Your task to perform on an android device: toggle improve location accuracy Image 0: 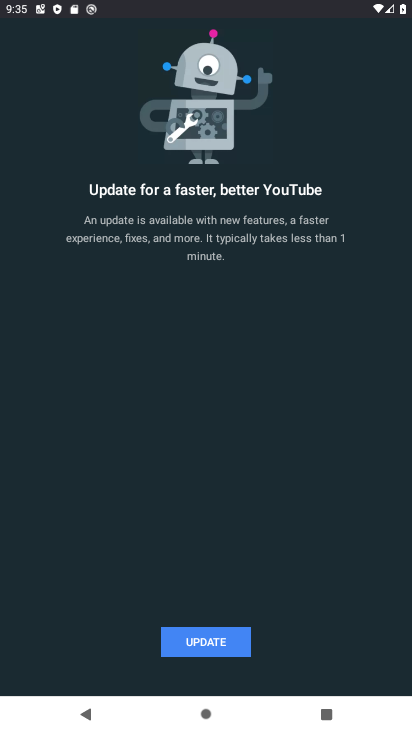
Step 0: press home button
Your task to perform on an android device: toggle improve location accuracy Image 1: 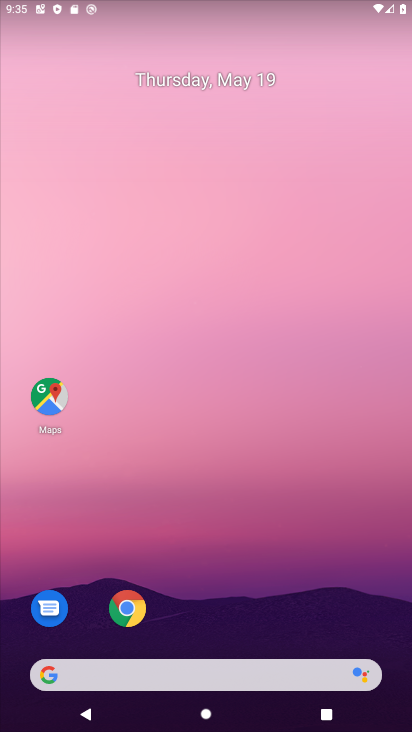
Step 1: drag from (194, 653) to (253, 264)
Your task to perform on an android device: toggle improve location accuracy Image 2: 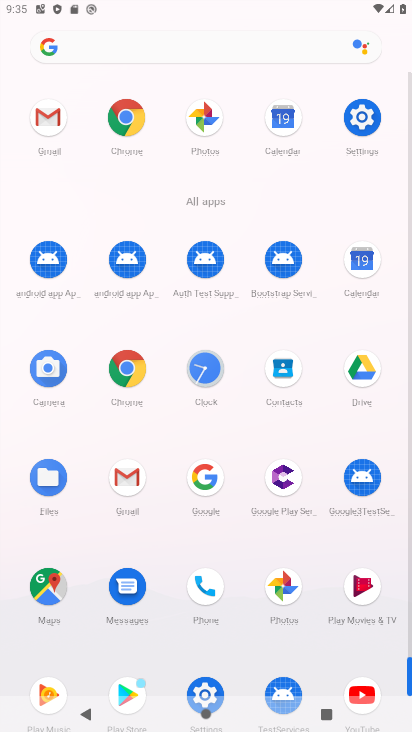
Step 2: click (358, 121)
Your task to perform on an android device: toggle improve location accuracy Image 3: 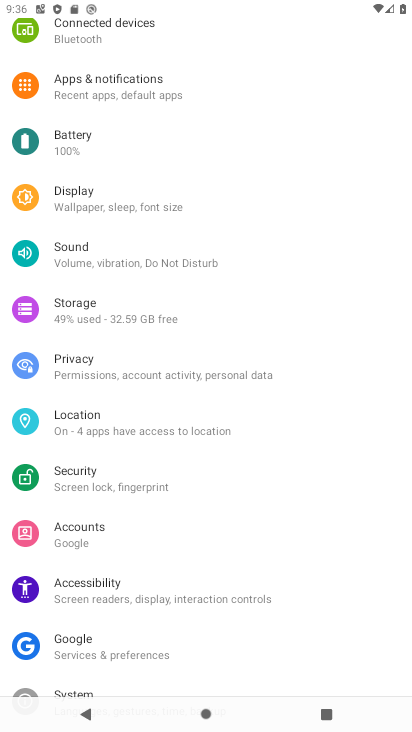
Step 3: click (142, 422)
Your task to perform on an android device: toggle improve location accuracy Image 4: 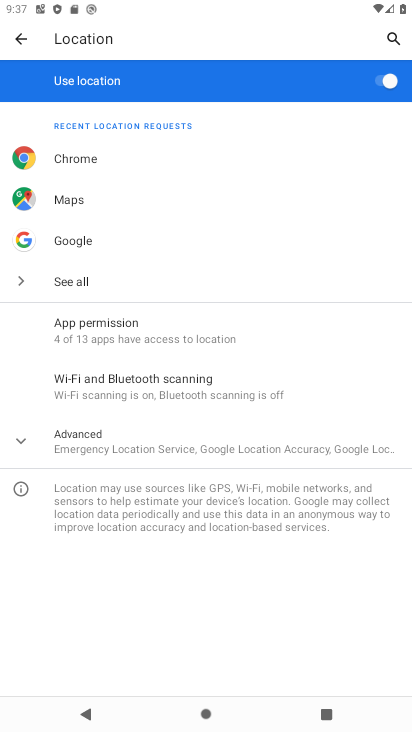
Step 4: click (16, 443)
Your task to perform on an android device: toggle improve location accuracy Image 5: 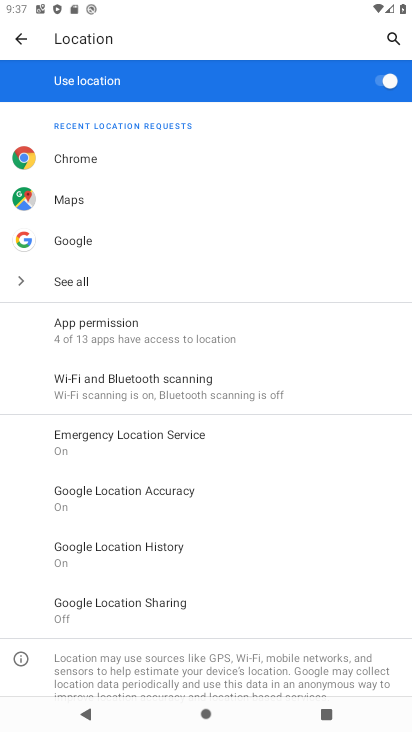
Step 5: click (156, 498)
Your task to perform on an android device: toggle improve location accuracy Image 6: 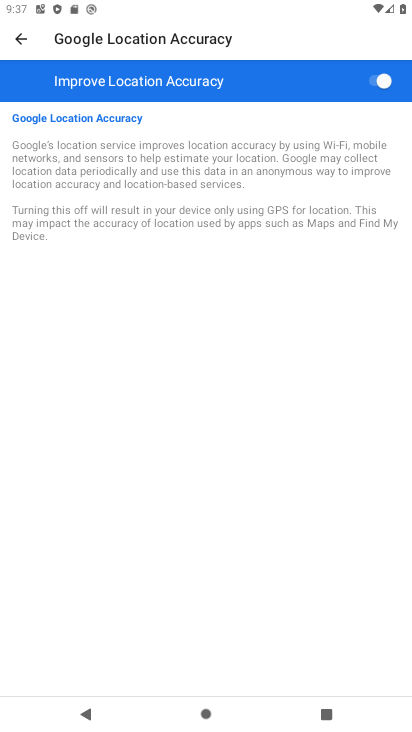
Step 6: click (363, 79)
Your task to perform on an android device: toggle improve location accuracy Image 7: 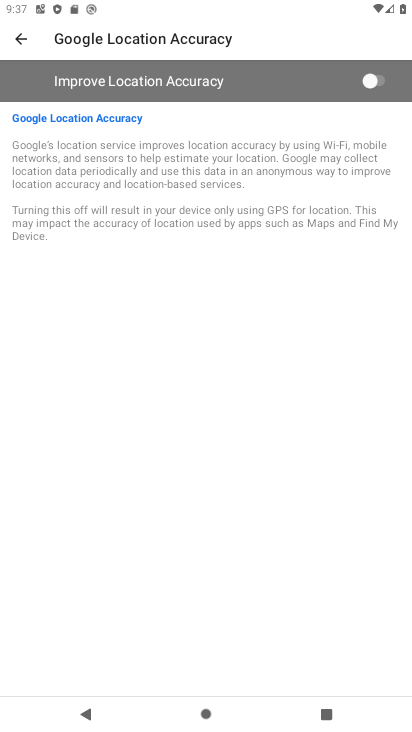
Step 7: task complete